Your task to perform on an android device: open wifi settings Image 0: 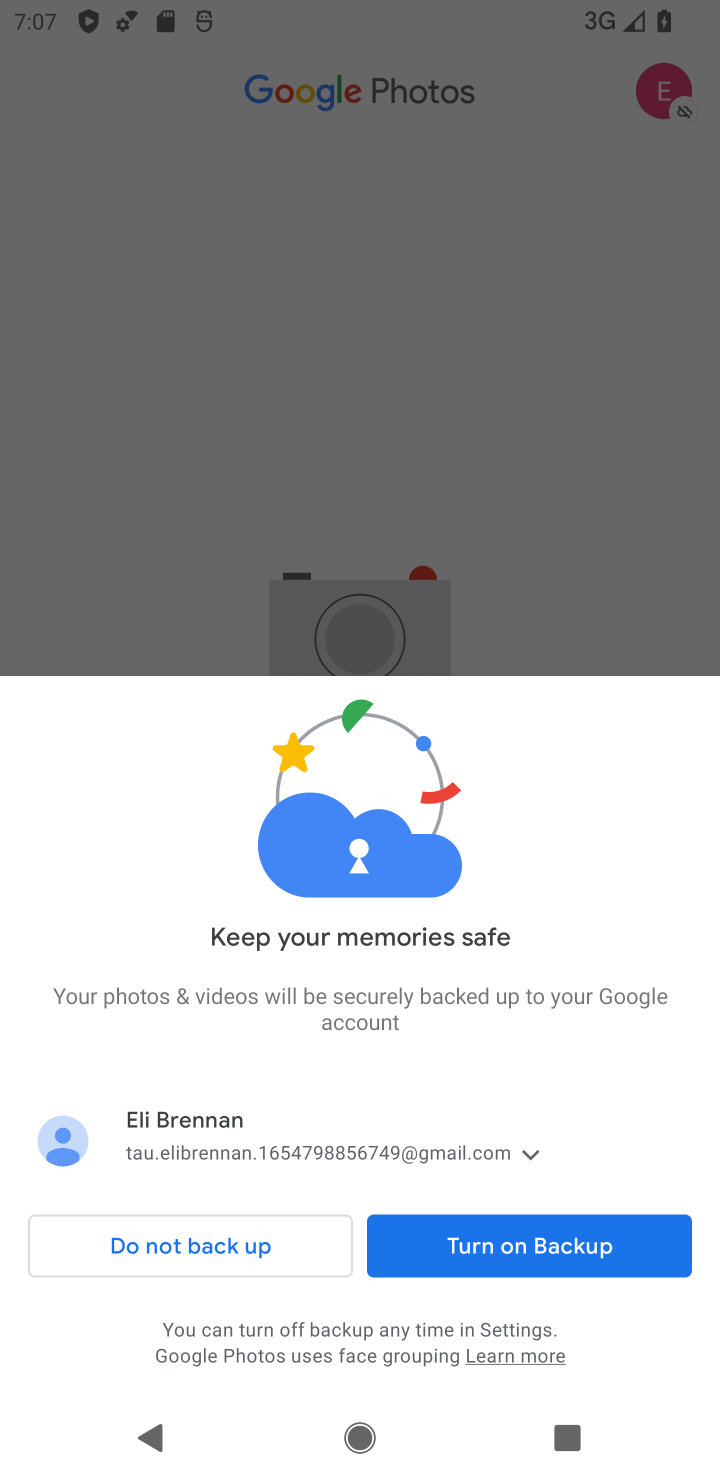
Step 0: press home button
Your task to perform on an android device: open wifi settings Image 1: 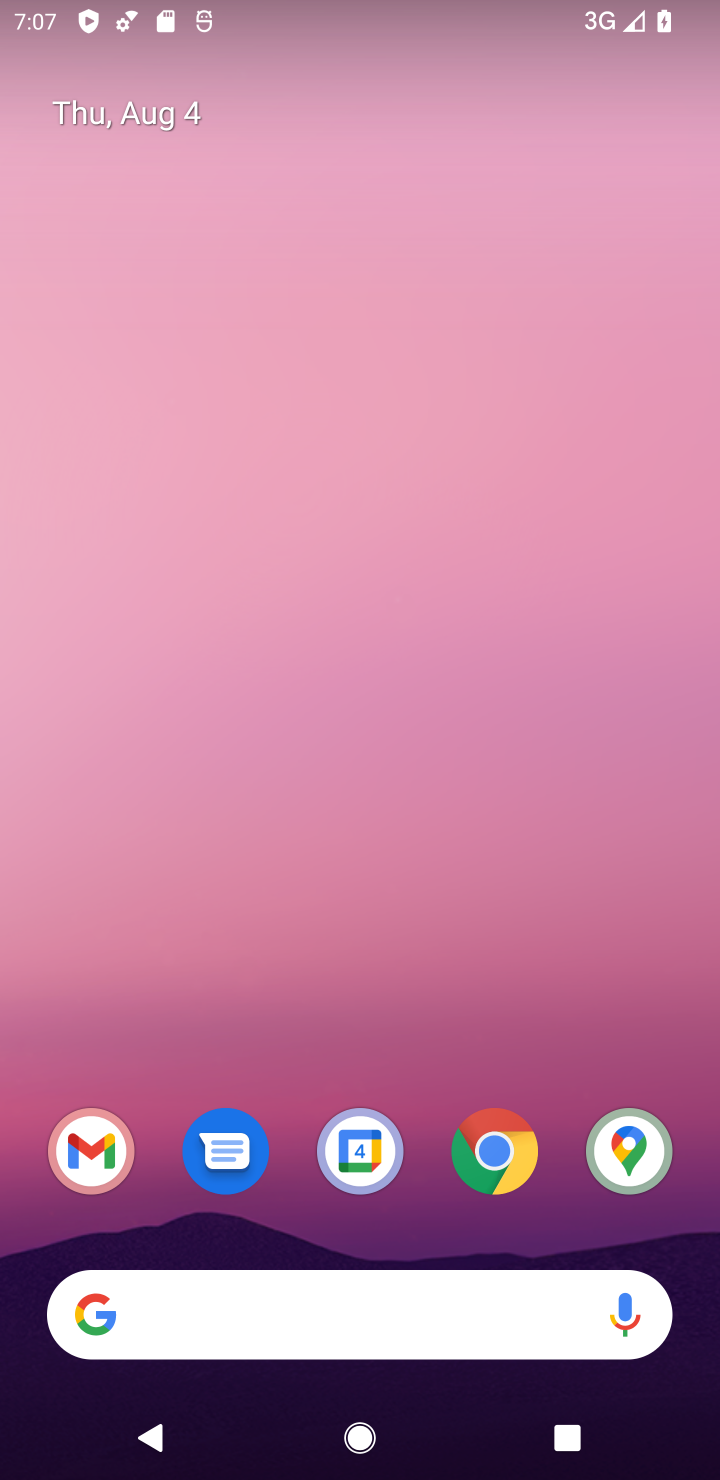
Step 1: drag from (563, 1067) to (462, 75)
Your task to perform on an android device: open wifi settings Image 2: 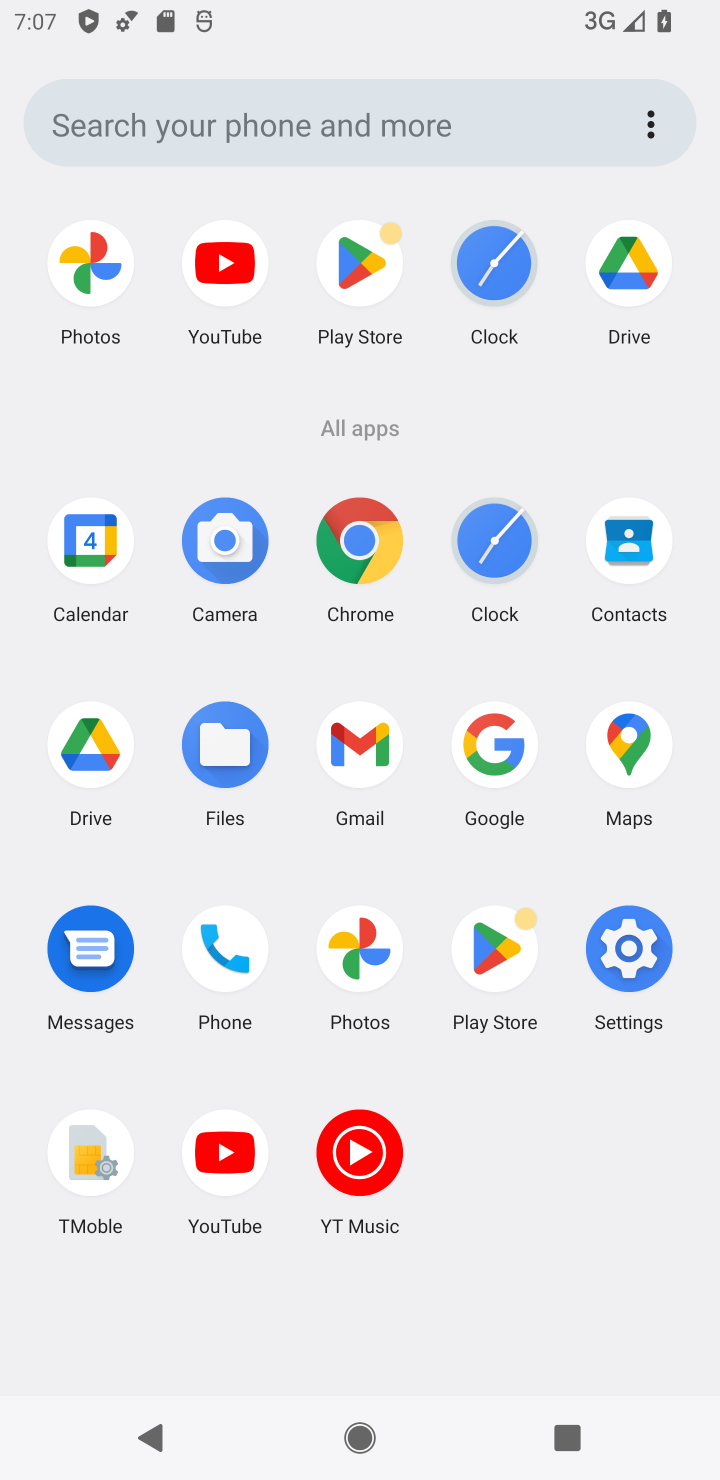
Step 2: click (628, 961)
Your task to perform on an android device: open wifi settings Image 3: 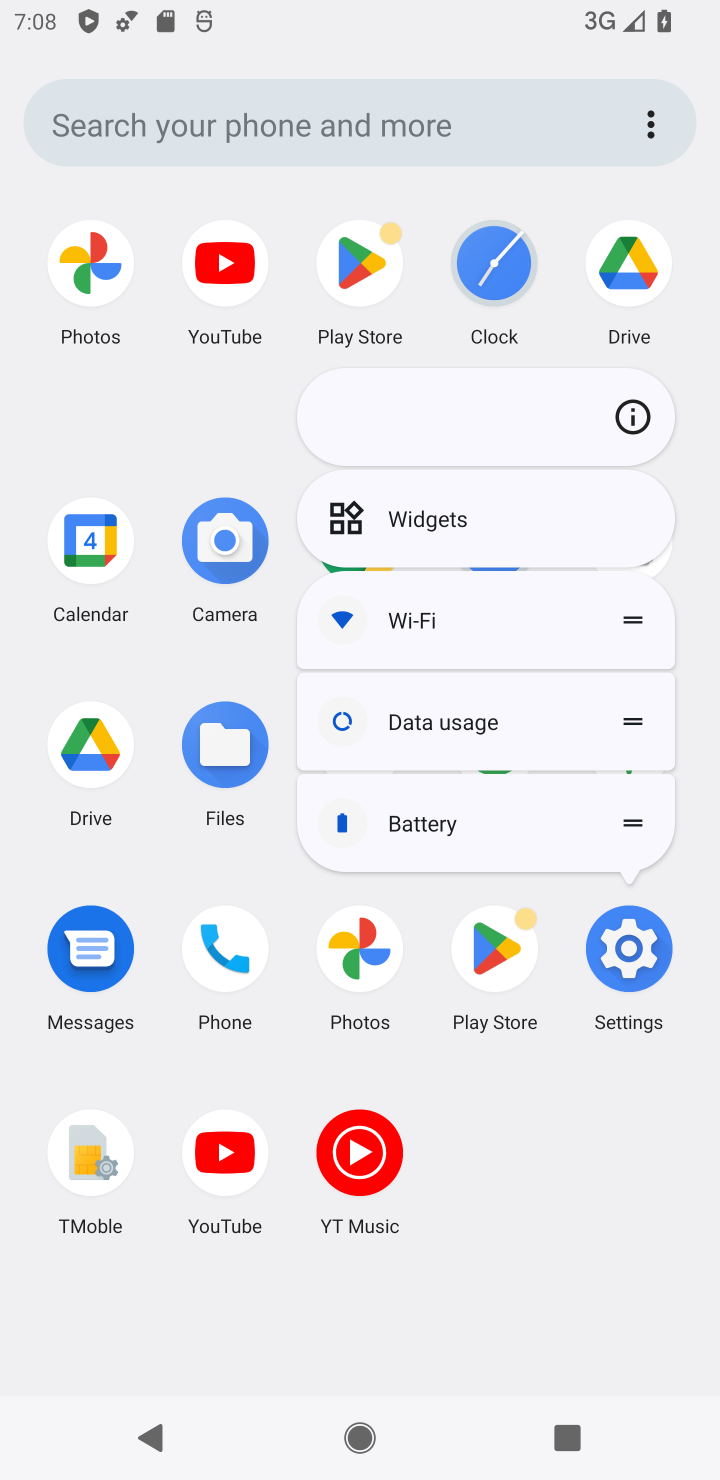
Step 3: click (642, 939)
Your task to perform on an android device: open wifi settings Image 4: 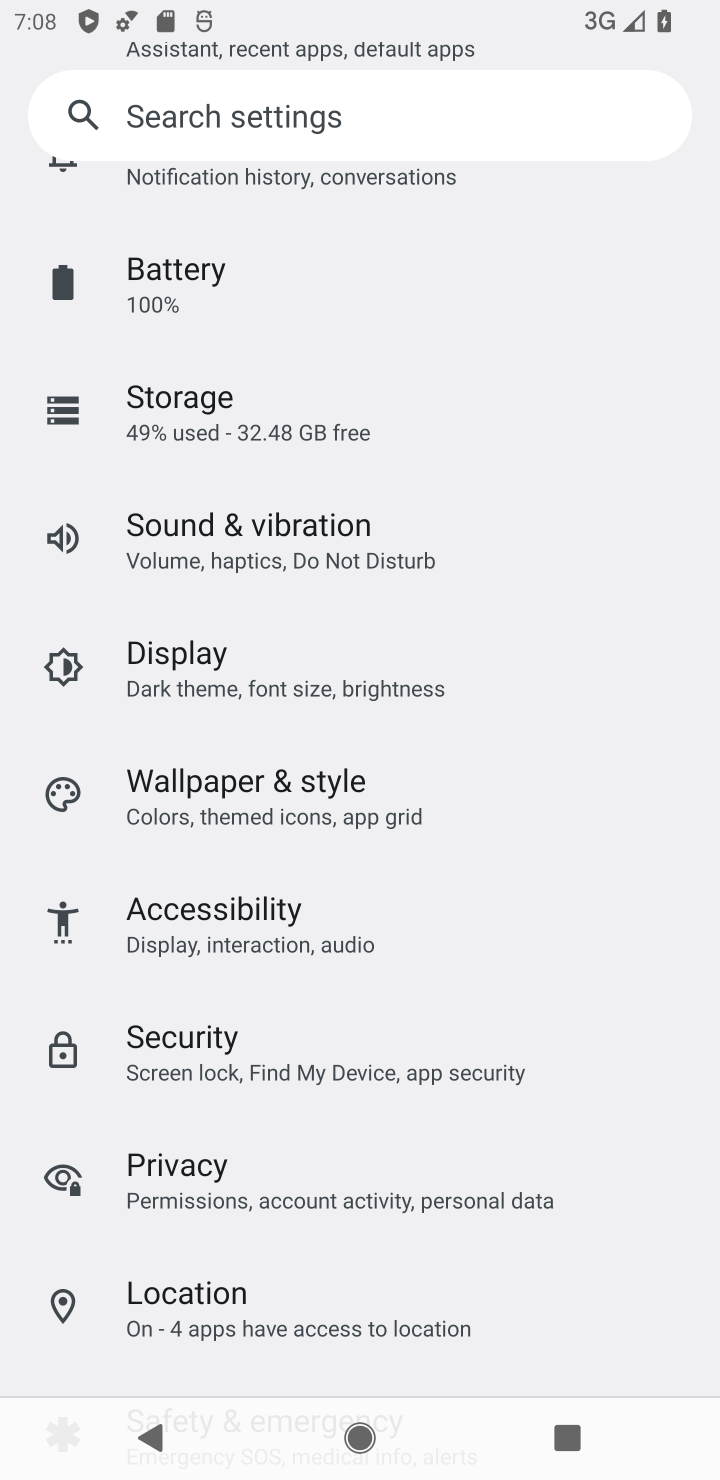
Step 4: drag from (496, 323) to (484, 1466)
Your task to perform on an android device: open wifi settings Image 5: 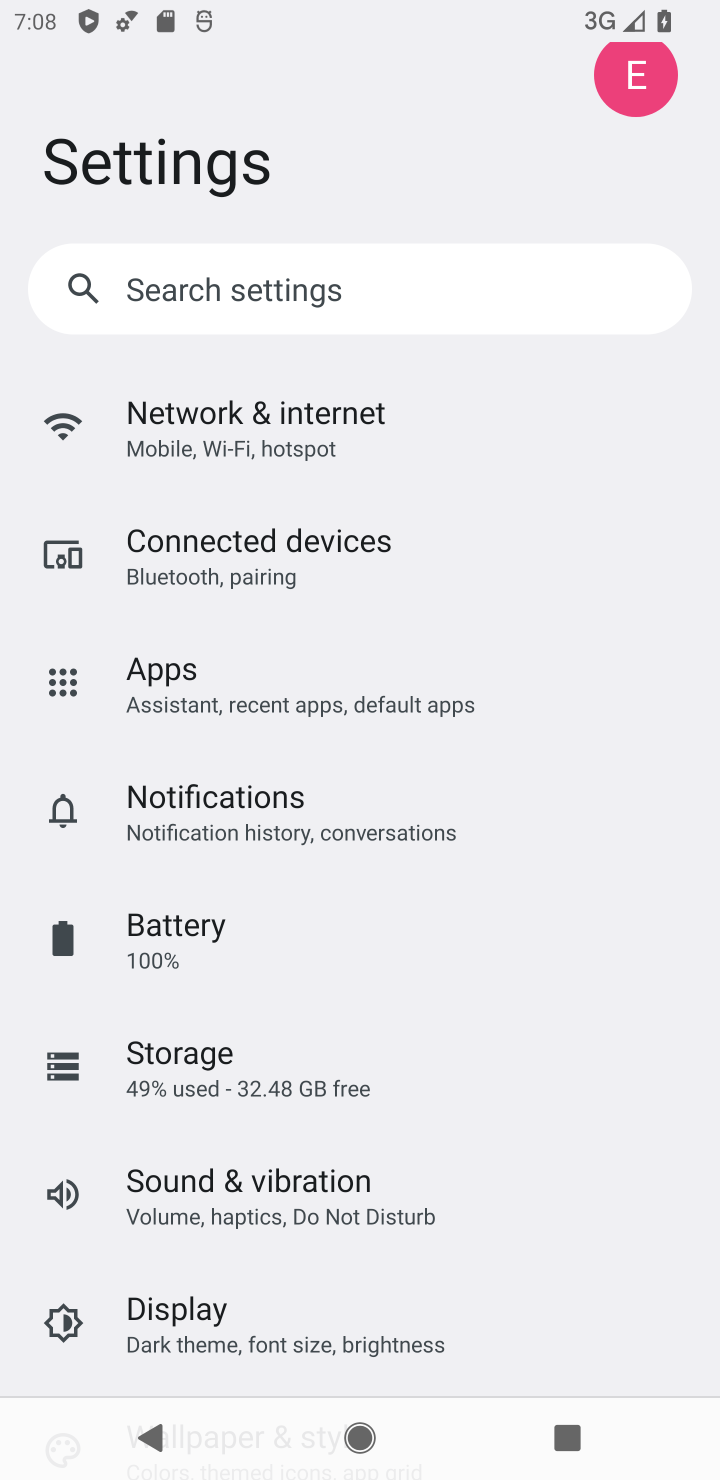
Step 5: drag from (495, 386) to (491, 767)
Your task to perform on an android device: open wifi settings Image 6: 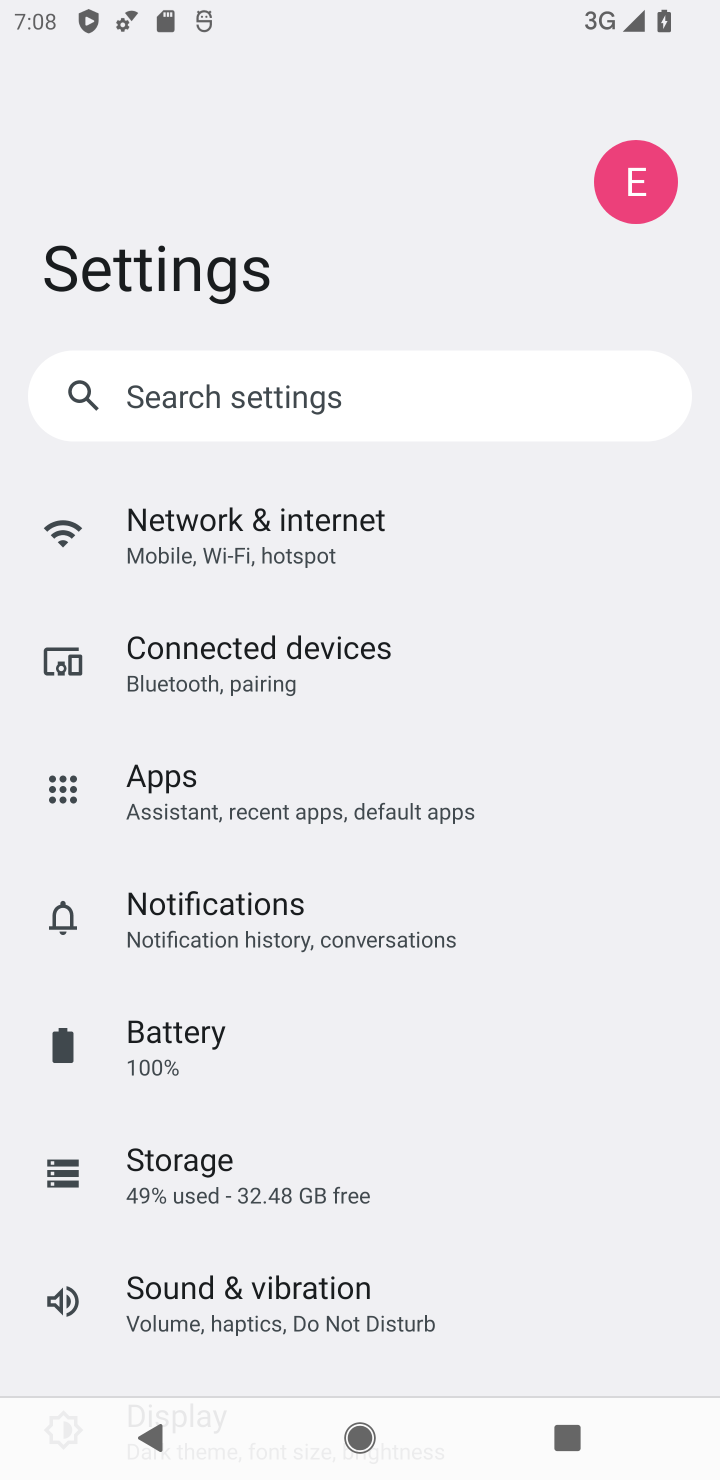
Step 6: click (475, 535)
Your task to perform on an android device: open wifi settings Image 7: 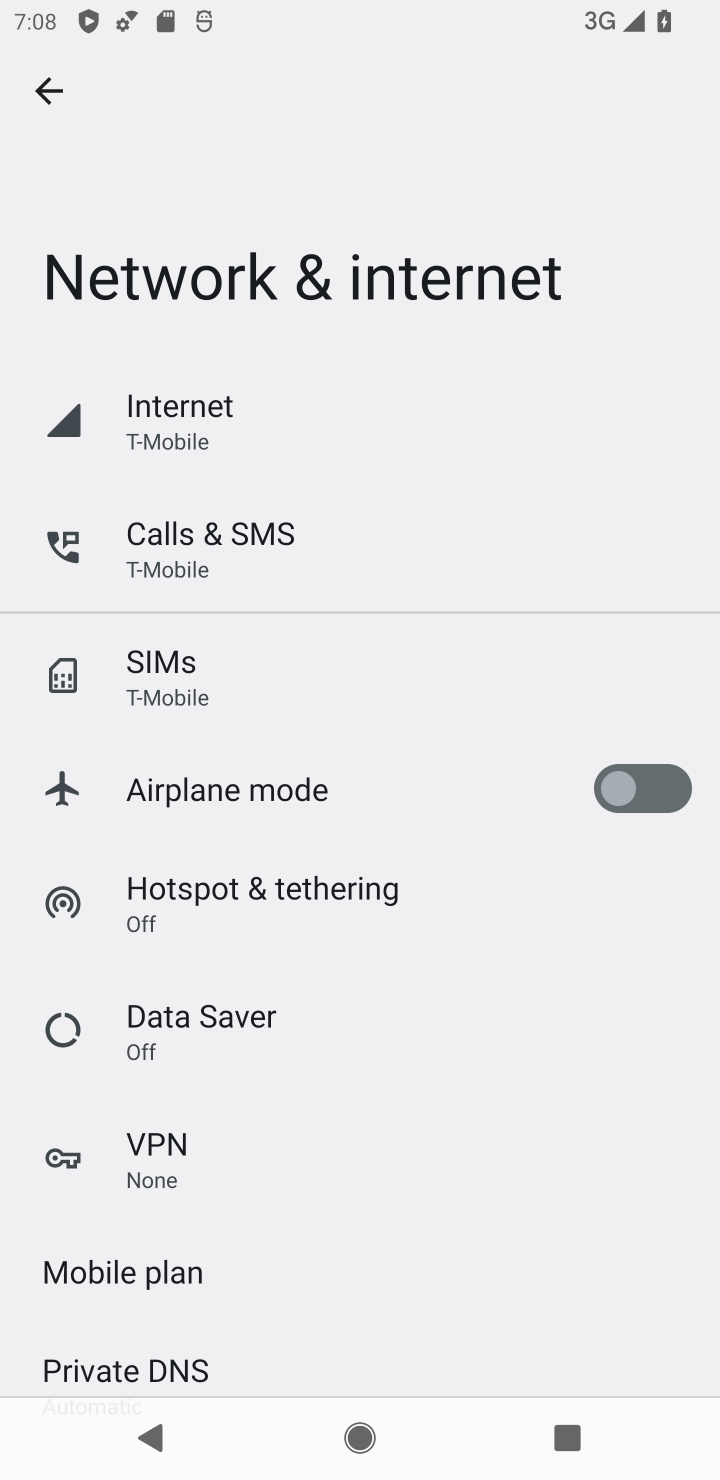
Step 7: click (388, 405)
Your task to perform on an android device: open wifi settings Image 8: 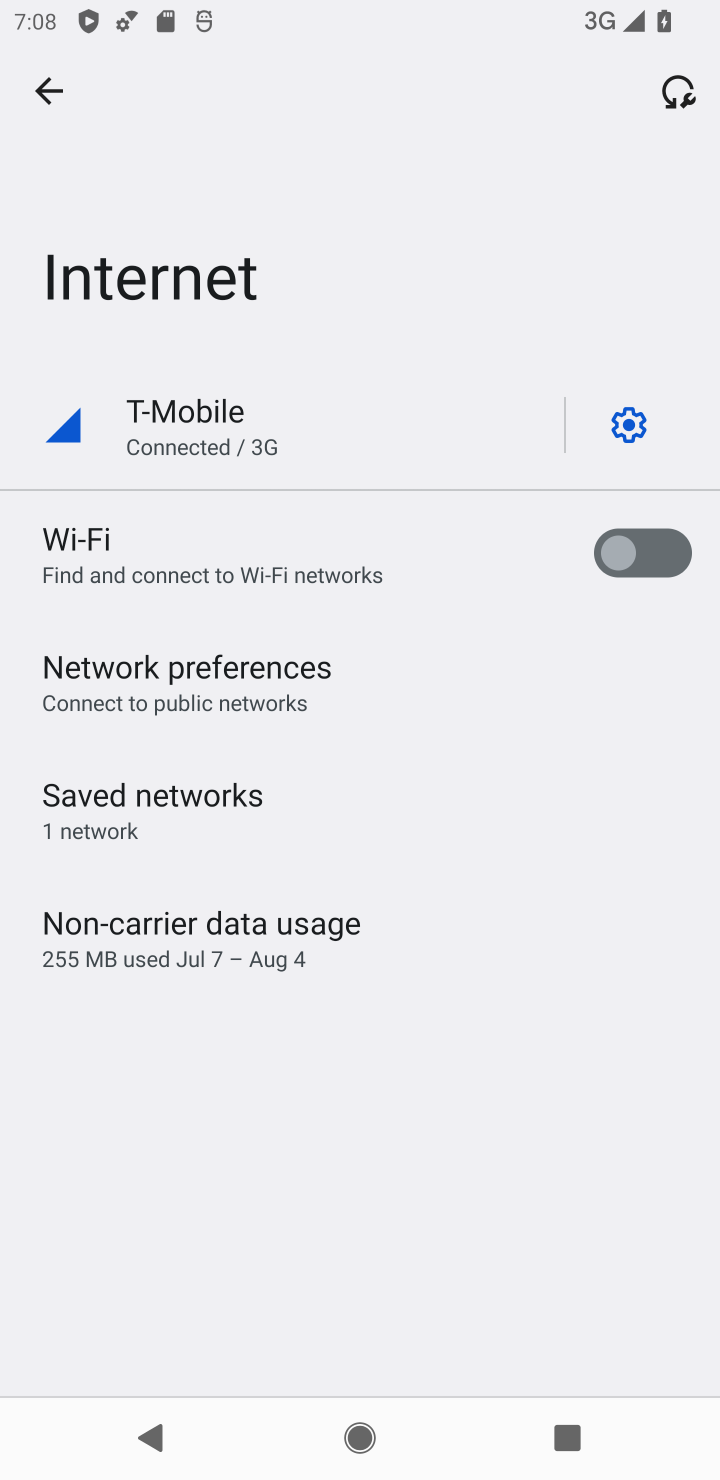
Step 8: task complete